Your task to perform on an android device: Search for pizza restaurants on Maps Image 0: 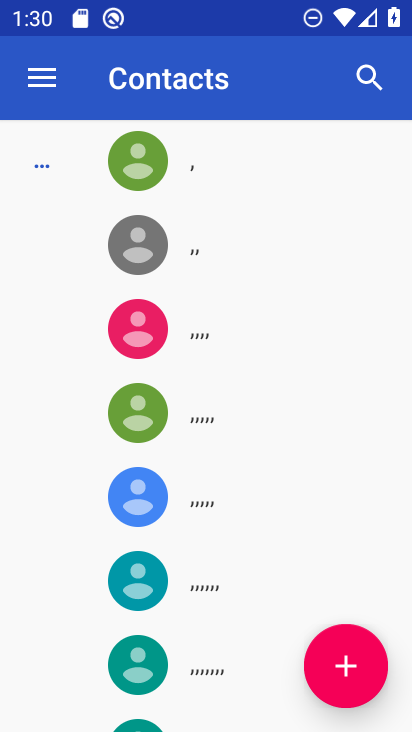
Step 0: press back button
Your task to perform on an android device: Search for pizza restaurants on Maps Image 1: 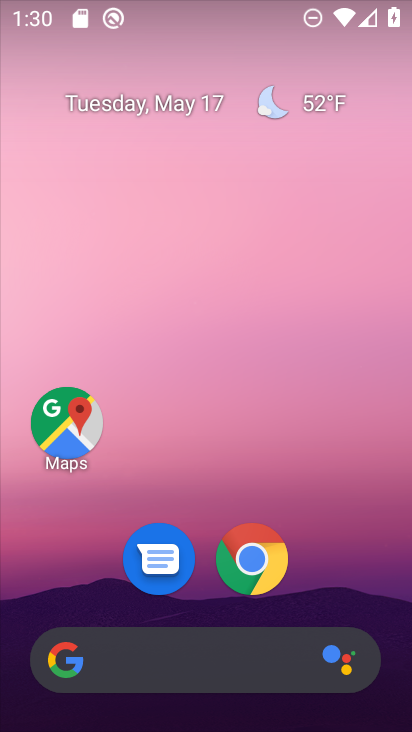
Step 1: click (66, 423)
Your task to perform on an android device: Search for pizza restaurants on Maps Image 2: 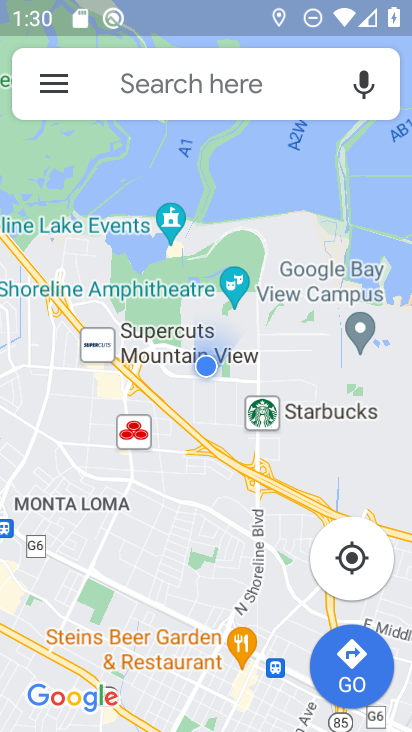
Step 2: click (153, 91)
Your task to perform on an android device: Search for pizza restaurants on Maps Image 3: 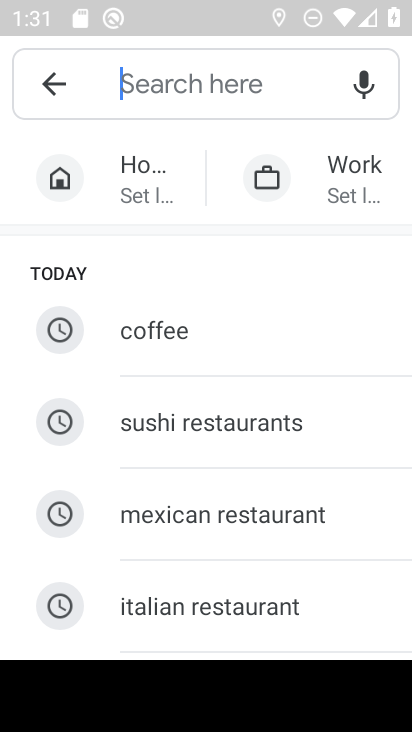
Step 3: type "pizza restaurants"
Your task to perform on an android device: Search for pizza restaurants on Maps Image 4: 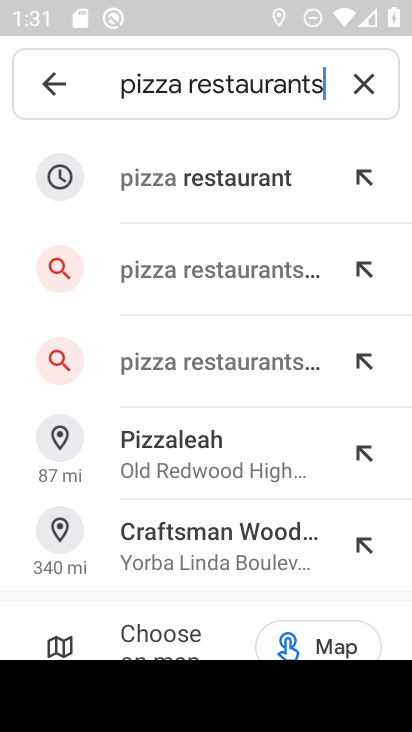
Step 4: click (233, 187)
Your task to perform on an android device: Search for pizza restaurants on Maps Image 5: 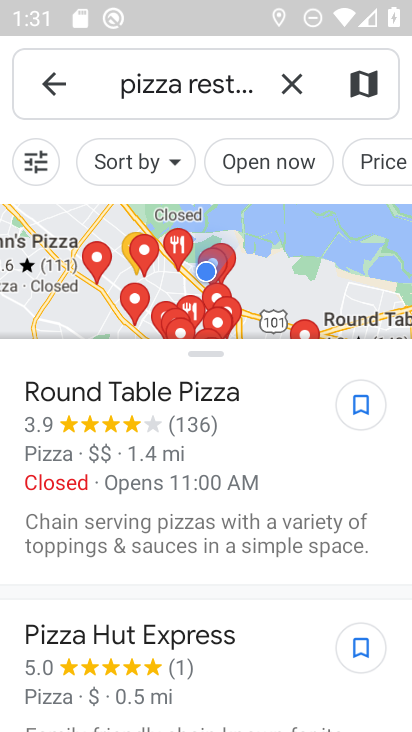
Step 5: task complete